Your task to perform on an android device: Search for Mexican restaurants on Maps Image 0: 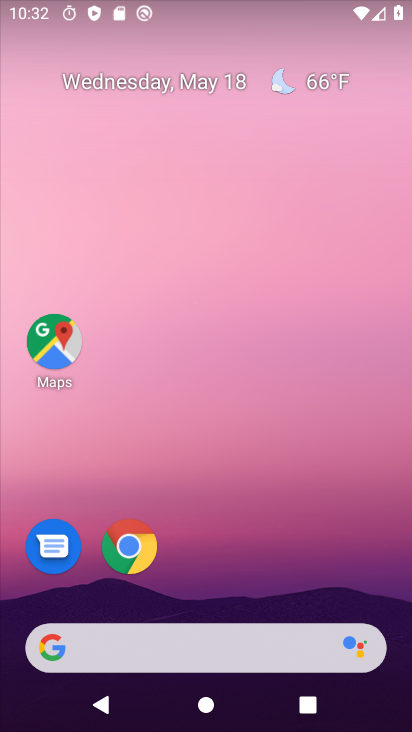
Step 0: click (46, 348)
Your task to perform on an android device: Search for Mexican restaurants on Maps Image 1: 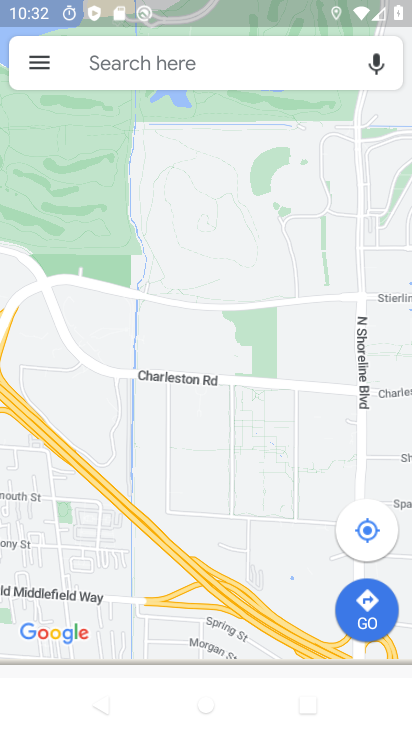
Step 1: click (143, 58)
Your task to perform on an android device: Search for Mexican restaurants on Maps Image 2: 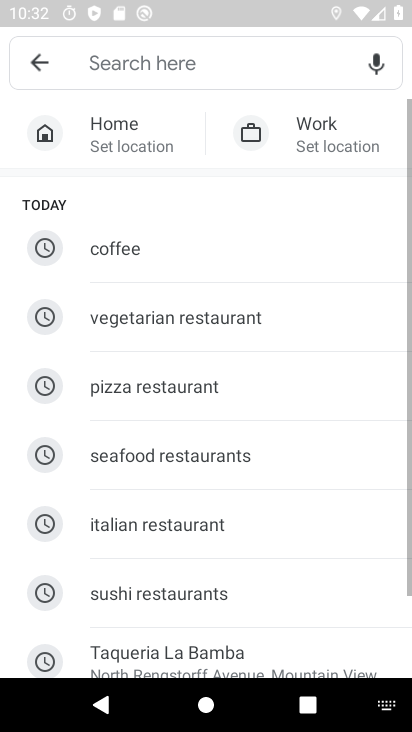
Step 2: drag from (189, 540) to (233, 203)
Your task to perform on an android device: Search for Mexican restaurants on Maps Image 3: 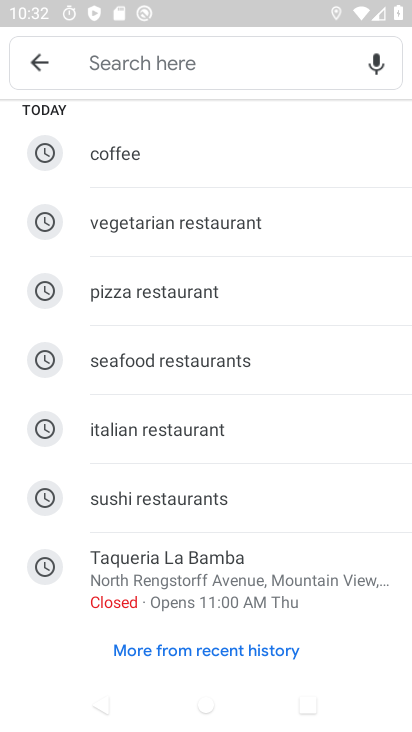
Step 3: click (140, 61)
Your task to perform on an android device: Search for Mexican restaurants on Maps Image 4: 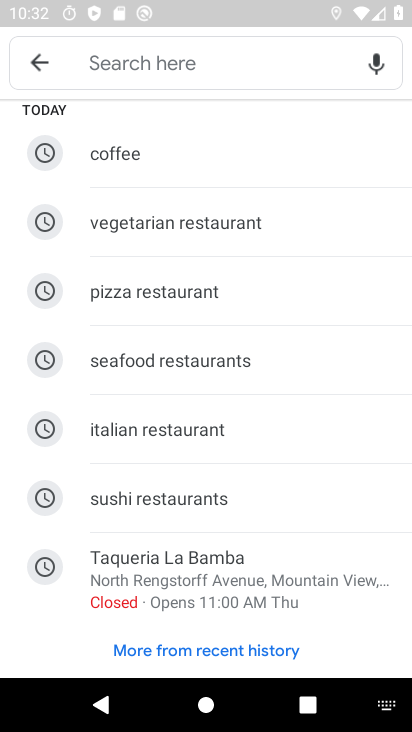
Step 4: type "mexican restaurant"
Your task to perform on an android device: Search for Mexican restaurants on Maps Image 5: 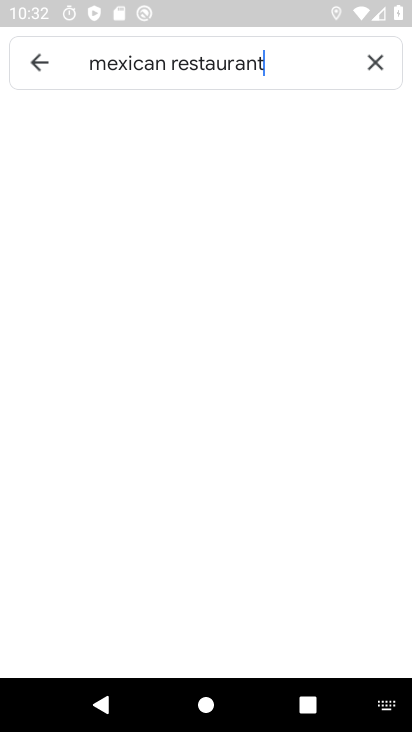
Step 5: type ""
Your task to perform on an android device: Search for Mexican restaurants on Maps Image 6: 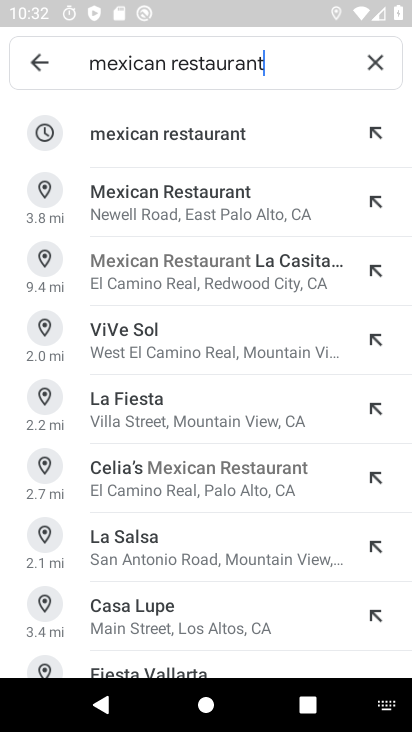
Step 6: click (201, 119)
Your task to perform on an android device: Search for Mexican restaurants on Maps Image 7: 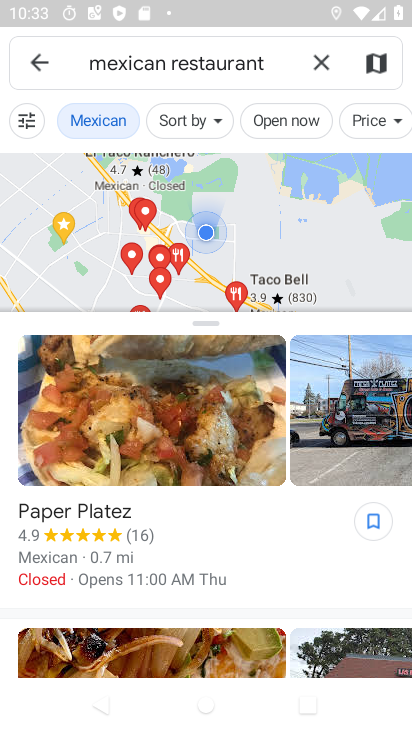
Step 7: task complete